Your task to perform on an android device: turn on wifi Image 0: 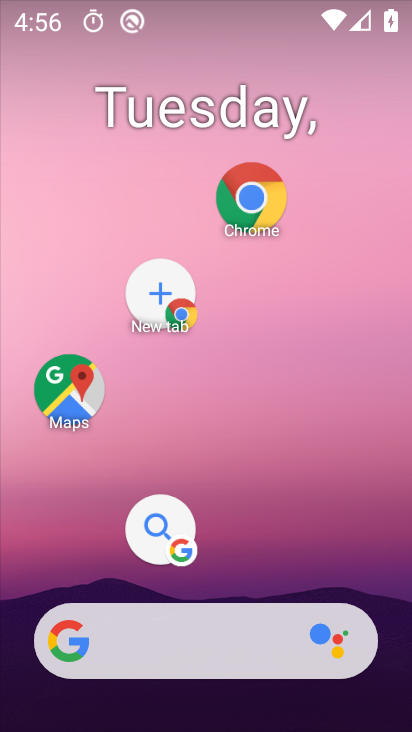
Step 0: drag from (247, 501) to (304, 295)
Your task to perform on an android device: turn on wifi Image 1: 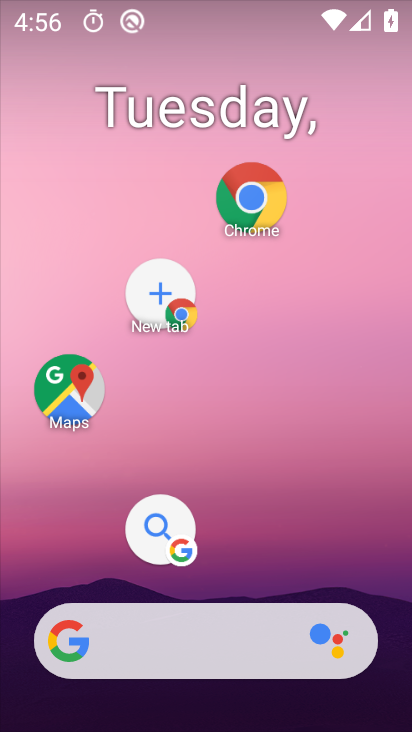
Step 1: drag from (214, 584) to (265, 398)
Your task to perform on an android device: turn on wifi Image 2: 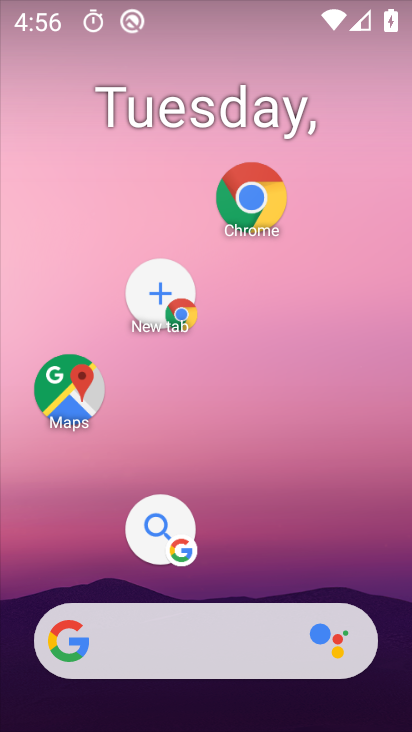
Step 2: drag from (210, 602) to (288, 267)
Your task to perform on an android device: turn on wifi Image 3: 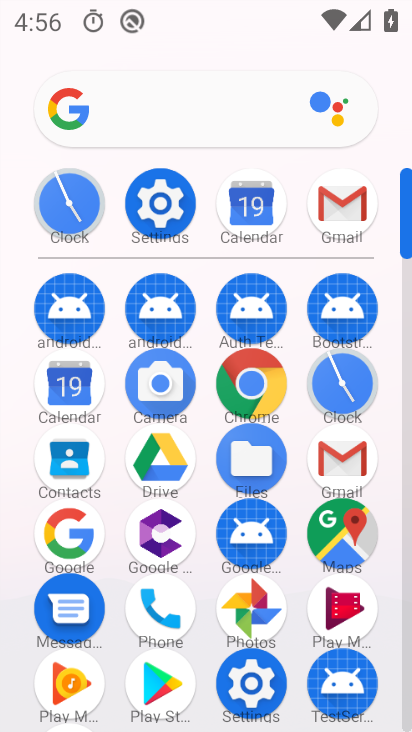
Step 3: click (156, 185)
Your task to perform on an android device: turn on wifi Image 4: 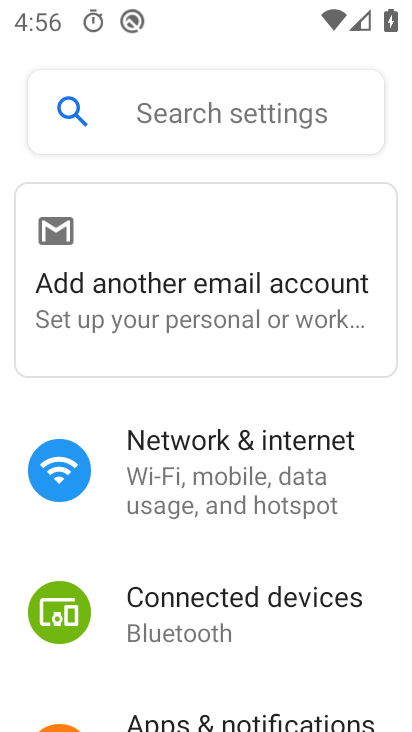
Step 4: click (164, 468)
Your task to perform on an android device: turn on wifi Image 5: 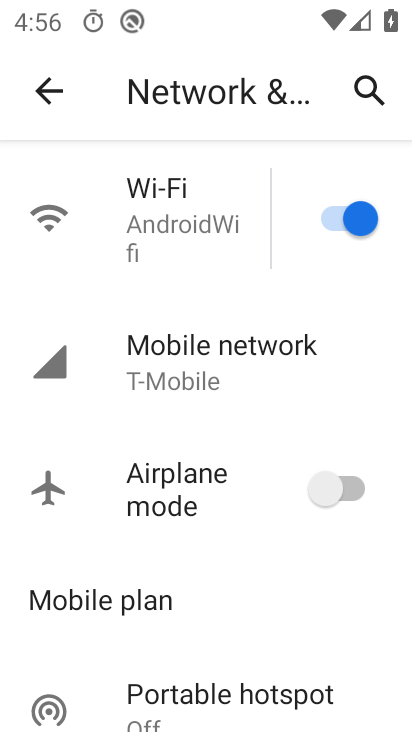
Step 5: task complete